Your task to perform on an android device: toggle sleep mode Image 0: 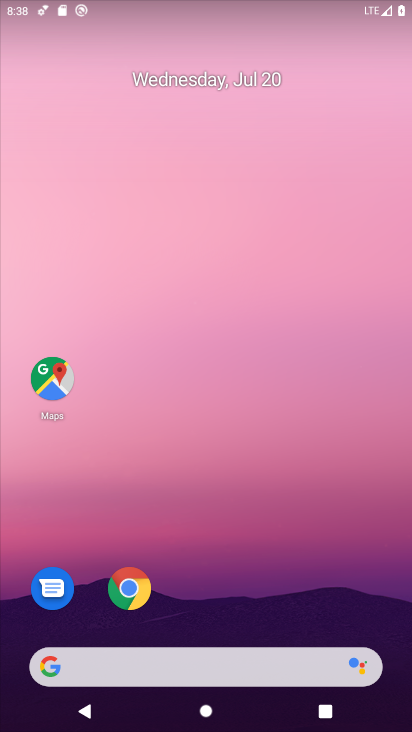
Step 0: press home button
Your task to perform on an android device: toggle sleep mode Image 1: 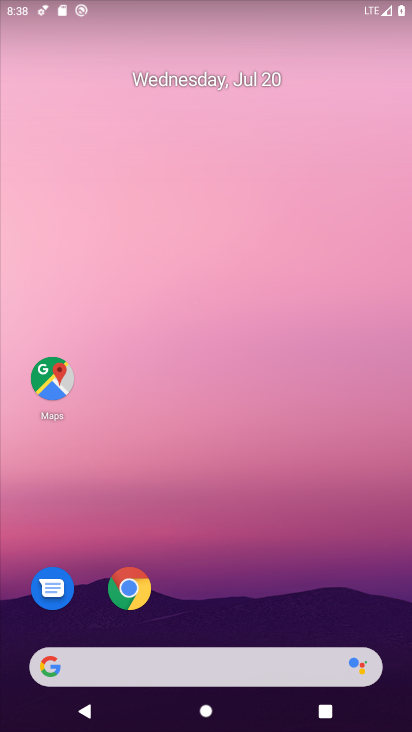
Step 1: drag from (194, 616) to (243, 70)
Your task to perform on an android device: toggle sleep mode Image 2: 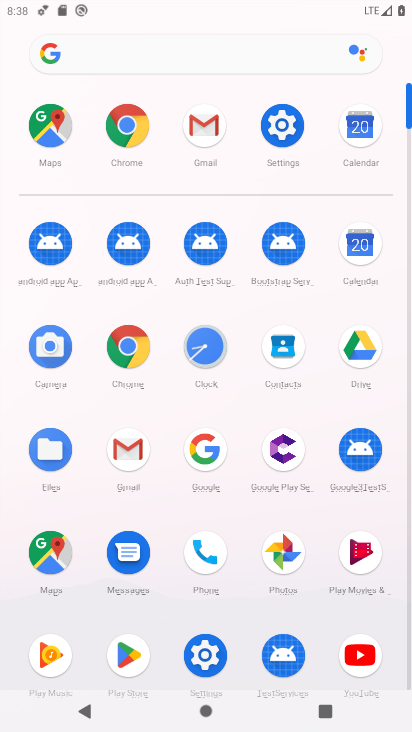
Step 2: click (279, 123)
Your task to perform on an android device: toggle sleep mode Image 3: 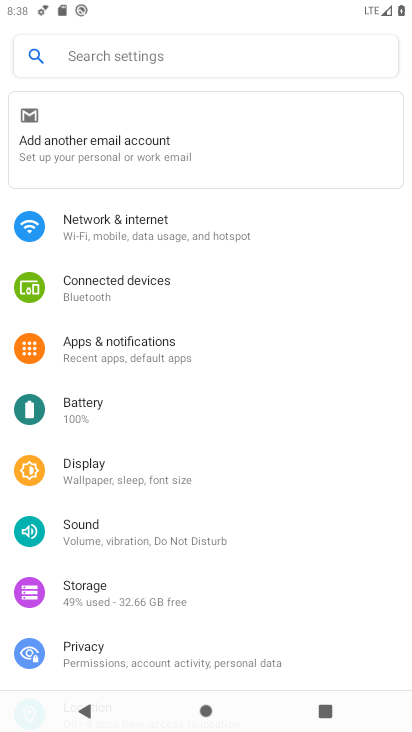
Step 3: click (126, 466)
Your task to perform on an android device: toggle sleep mode Image 4: 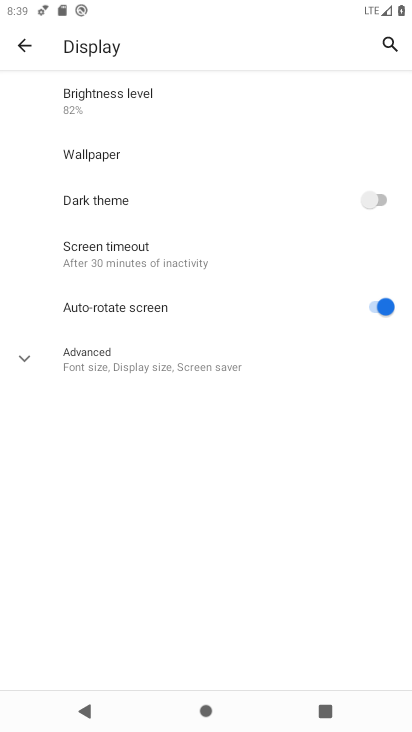
Step 4: click (28, 359)
Your task to perform on an android device: toggle sleep mode Image 5: 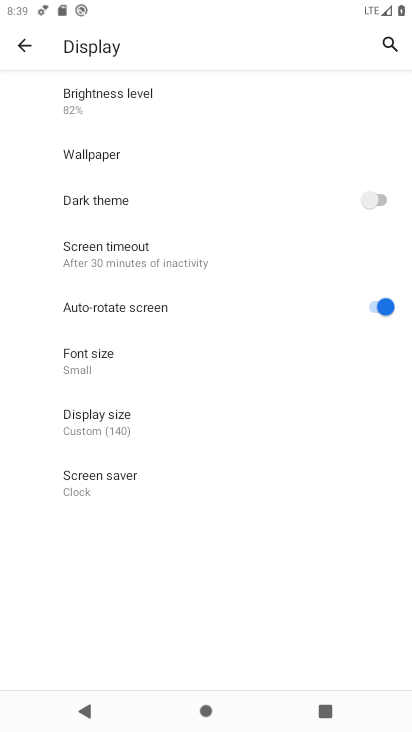
Step 5: task complete